Your task to perform on an android device: Search for "acer predator" on newegg, select the first entry, and add it to the cart. Image 0: 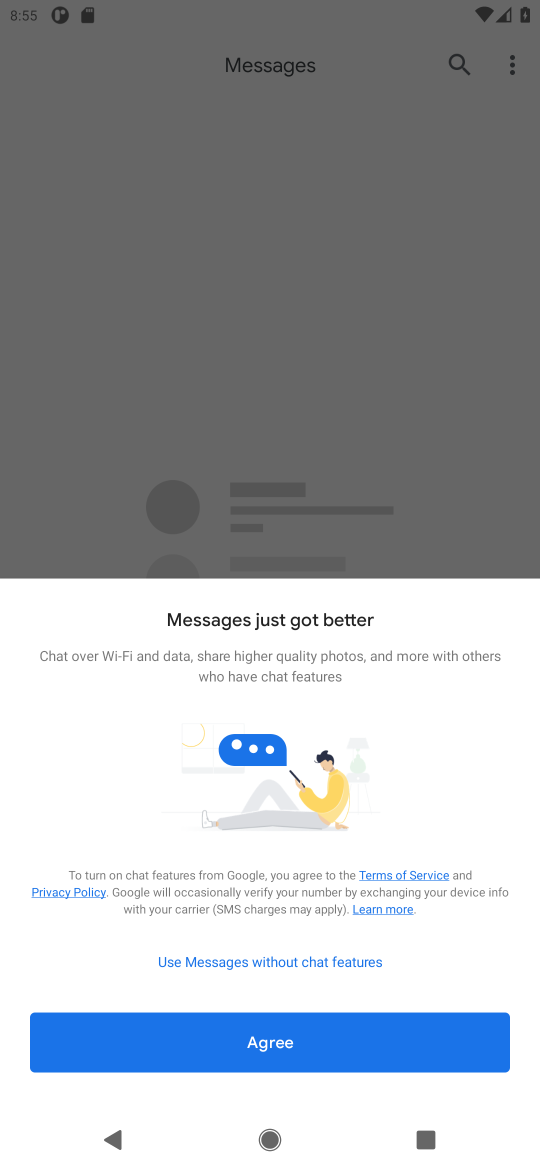
Step 0: press home button
Your task to perform on an android device: Search for "acer predator" on newegg, select the first entry, and add it to the cart. Image 1: 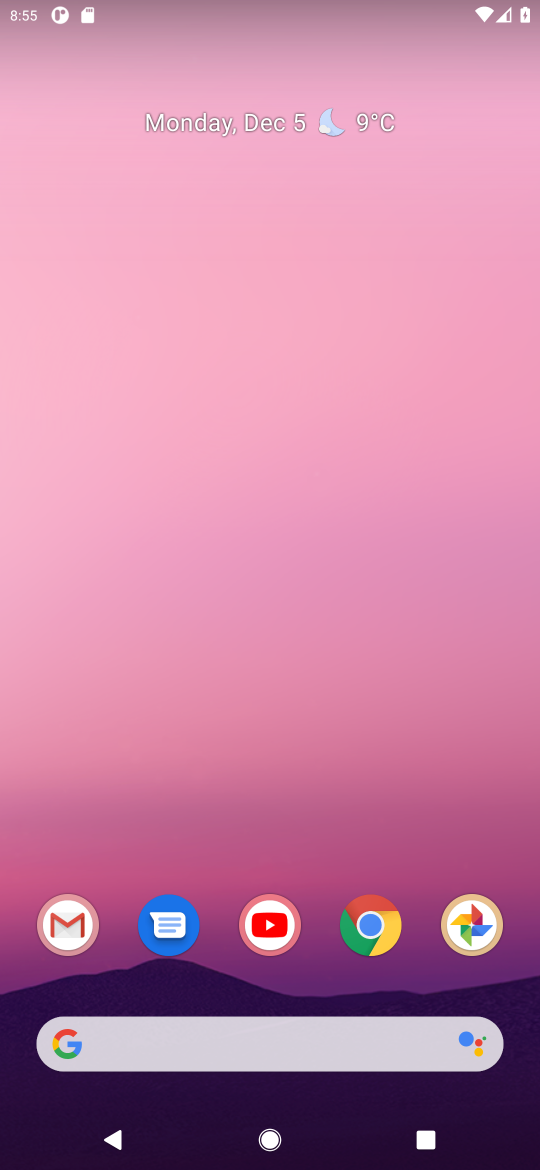
Step 1: click (363, 940)
Your task to perform on an android device: Search for "acer predator" on newegg, select the first entry, and add it to the cart. Image 2: 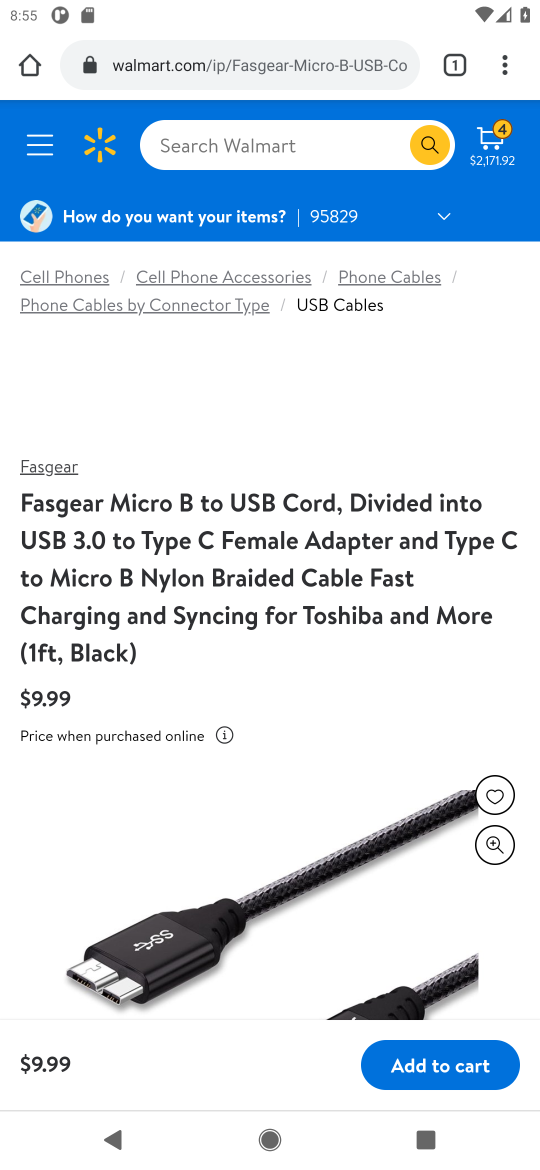
Step 2: click (212, 69)
Your task to perform on an android device: Search for "acer predator" on newegg, select the first entry, and add it to the cart. Image 3: 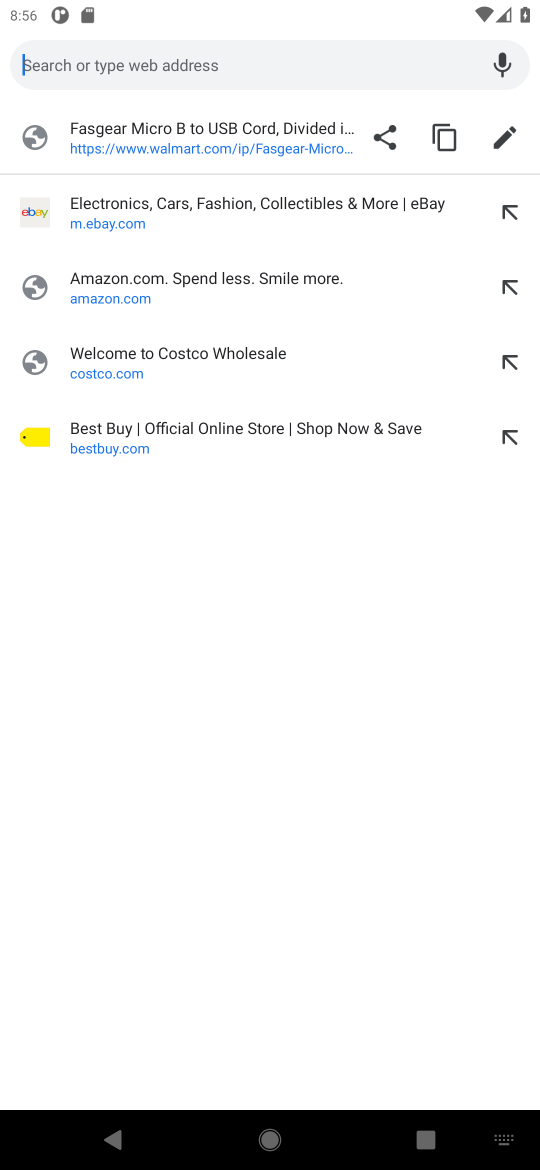
Step 3: type "newegg.com"
Your task to perform on an android device: Search for "acer predator" on newegg, select the first entry, and add it to the cart. Image 4: 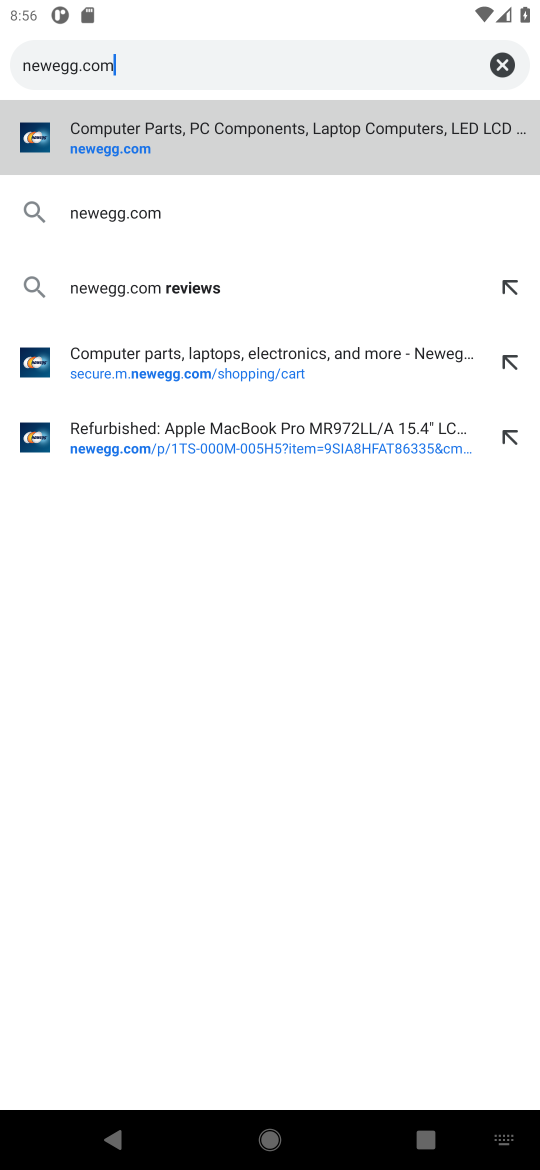
Step 4: click (119, 153)
Your task to perform on an android device: Search for "acer predator" on newegg, select the first entry, and add it to the cart. Image 5: 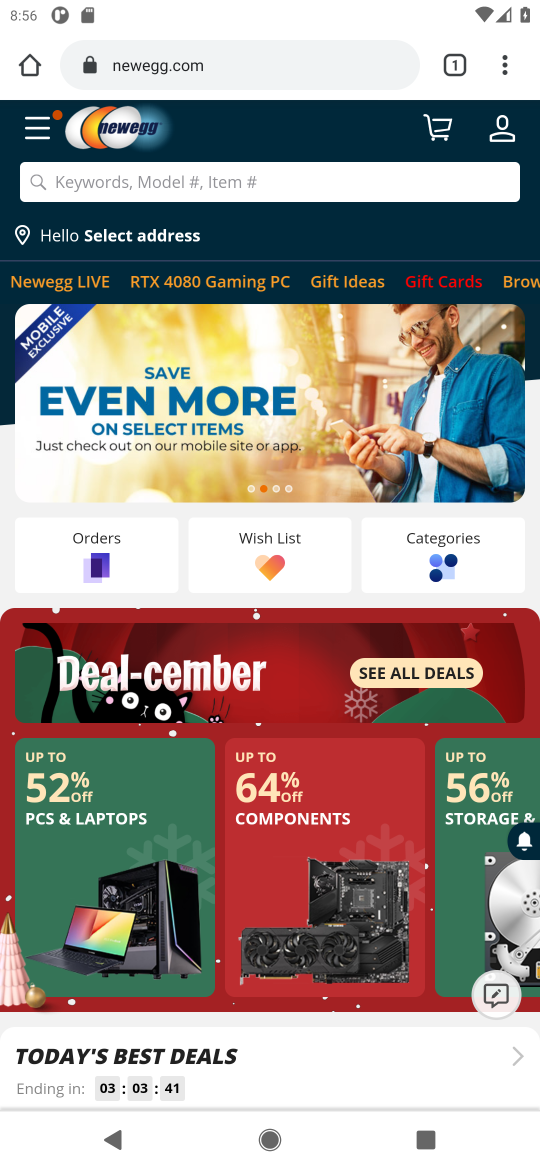
Step 5: click (150, 188)
Your task to perform on an android device: Search for "acer predator" on newegg, select the first entry, and add it to the cart. Image 6: 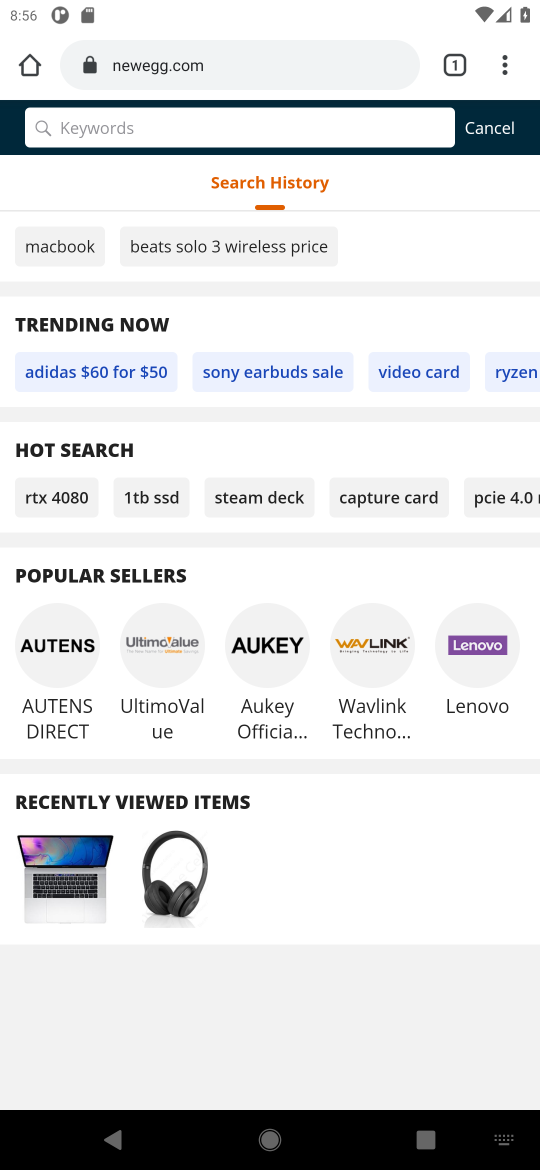
Step 6: type "acer predator"
Your task to perform on an android device: Search for "acer predator" on newegg, select the first entry, and add it to the cart. Image 7: 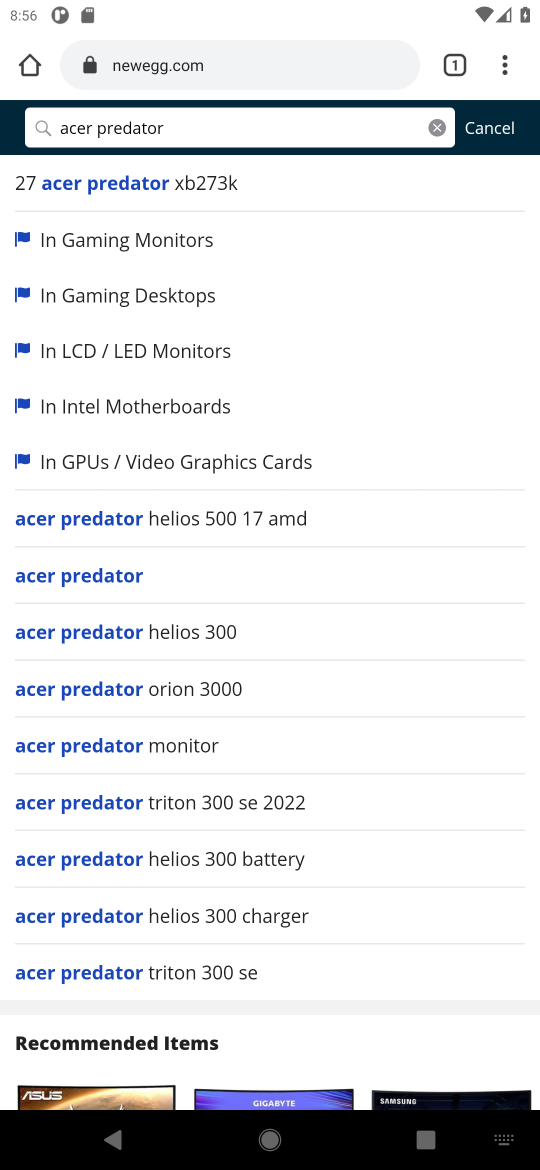
Step 7: click (116, 578)
Your task to perform on an android device: Search for "acer predator" on newegg, select the first entry, and add it to the cart. Image 8: 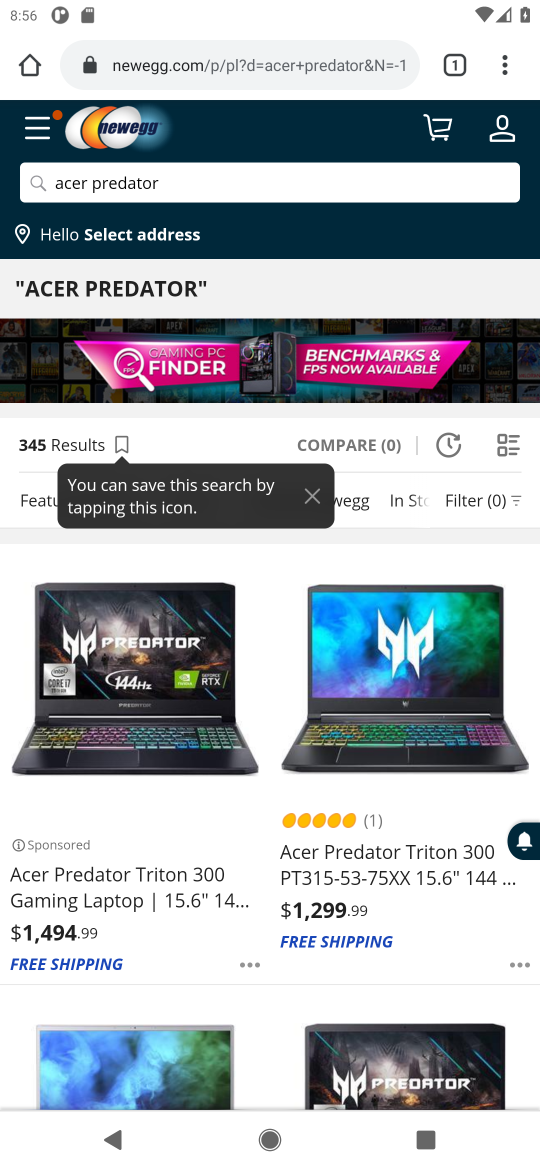
Step 8: click (92, 886)
Your task to perform on an android device: Search for "acer predator" on newegg, select the first entry, and add it to the cart. Image 9: 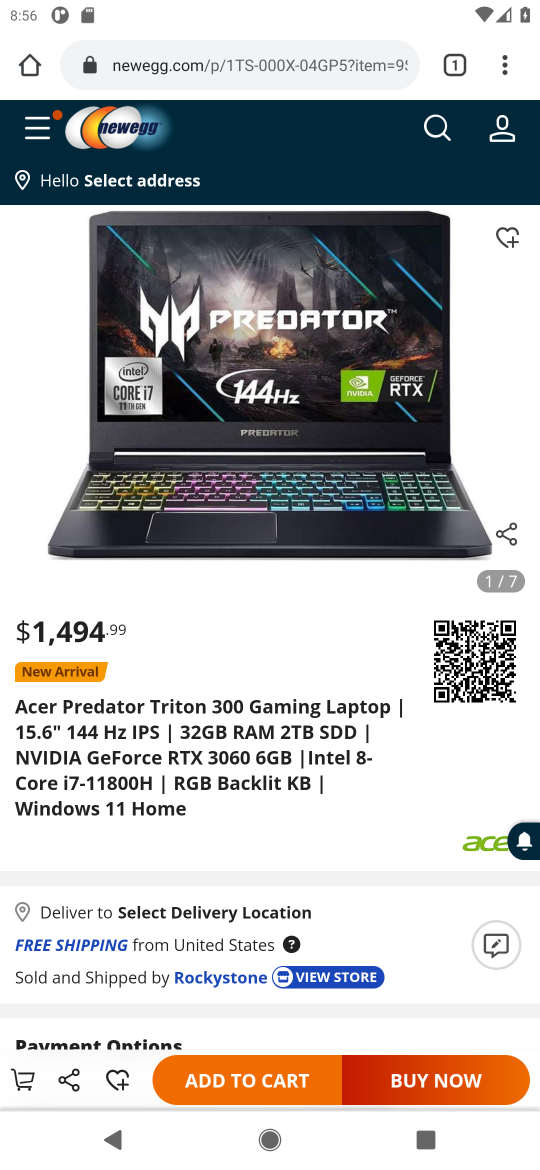
Step 9: click (231, 1083)
Your task to perform on an android device: Search for "acer predator" on newegg, select the first entry, and add it to the cart. Image 10: 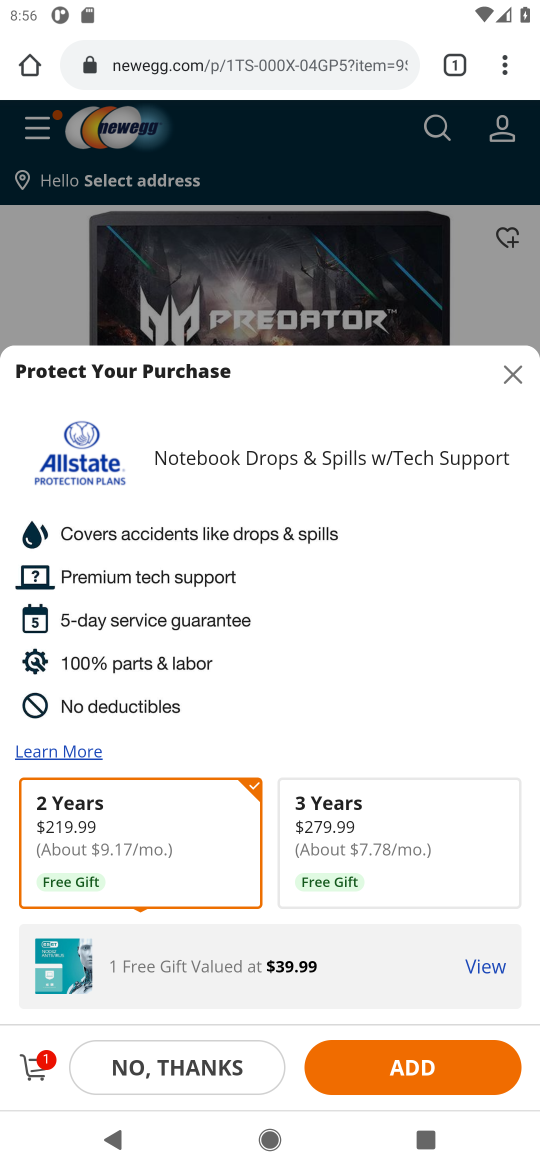
Step 10: task complete